Your task to perform on an android device: set the stopwatch Image 0: 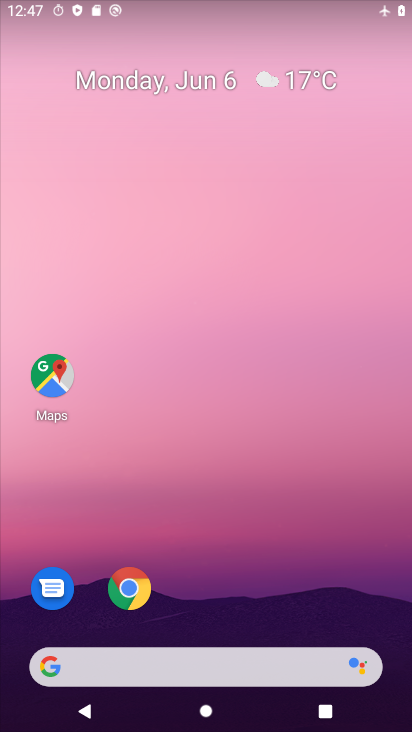
Step 0: drag from (308, 583) to (277, 11)
Your task to perform on an android device: set the stopwatch Image 1: 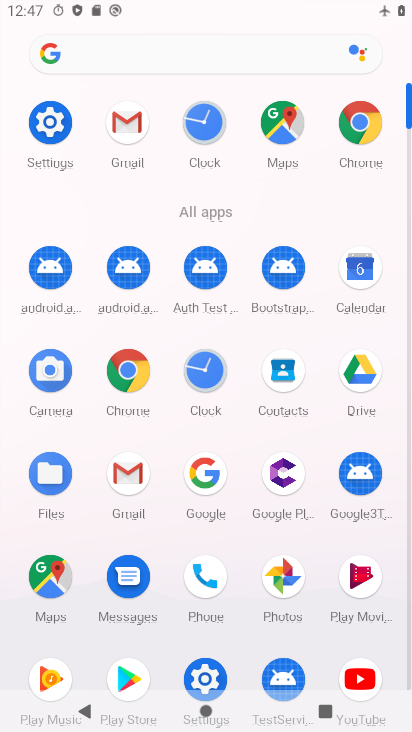
Step 1: click (210, 379)
Your task to perform on an android device: set the stopwatch Image 2: 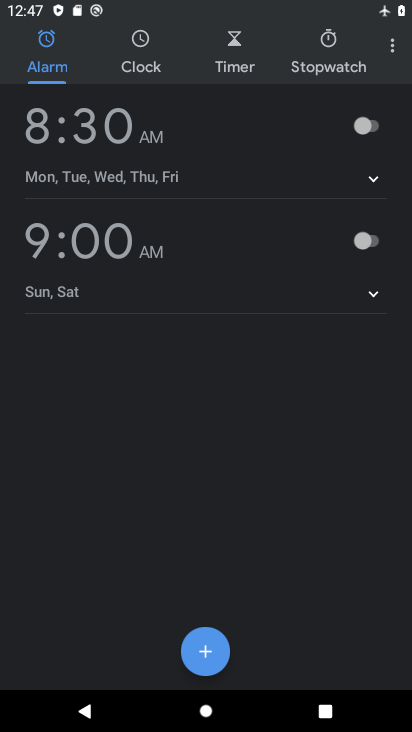
Step 2: click (322, 65)
Your task to perform on an android device: set the stopwatch Image 3: 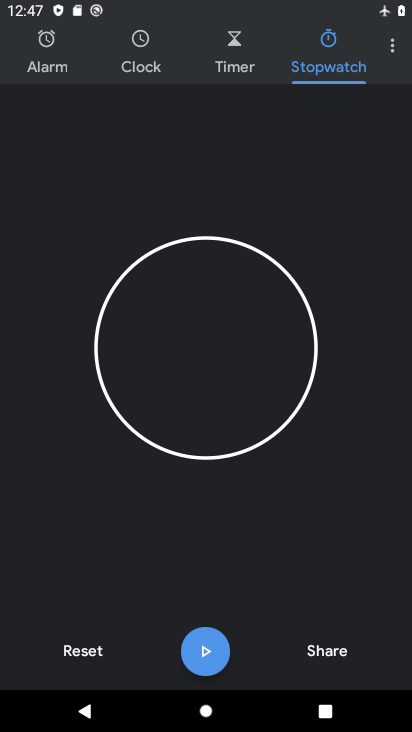
Step 3: task complete